Your task to perform on an android device: find photos in the google photos app Image 0: 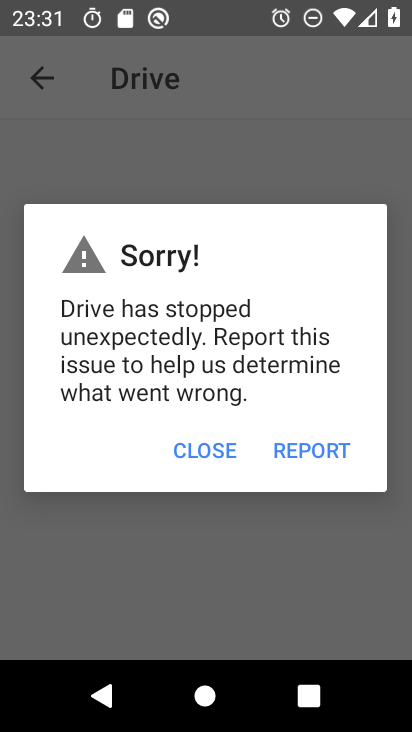
Step 0: press home button
Your task to perform on an android device: find photos in the google photos app Image 1: 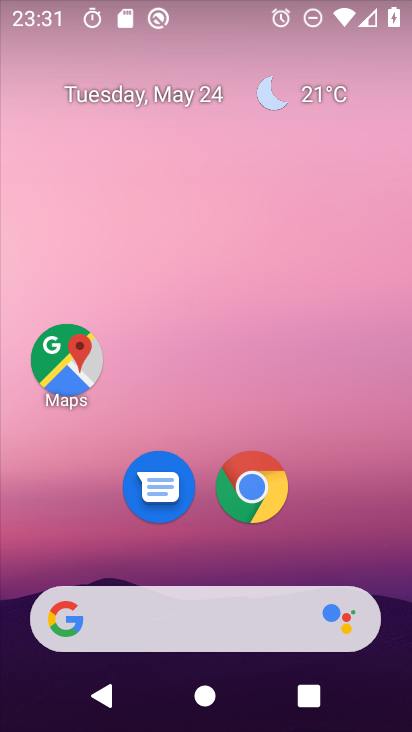
Step 1: drag from (343, 579) to (398, 54)
Your task to perform on an android device: find photos in the google photos app Image 2: 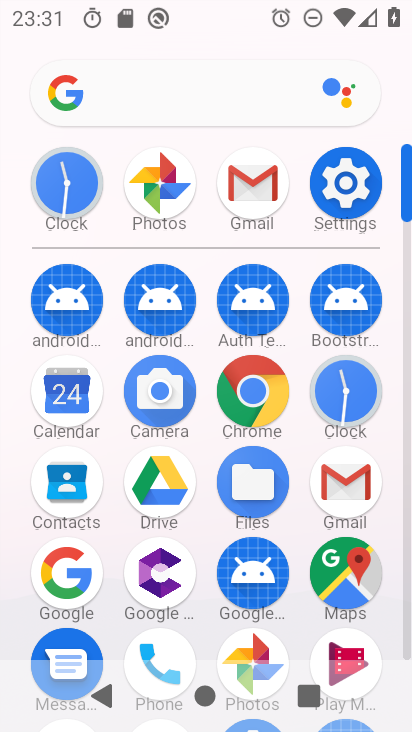
Step 2: click (161, 194)
Your task to perform on an android device: find photos in the google photos app Image 3: 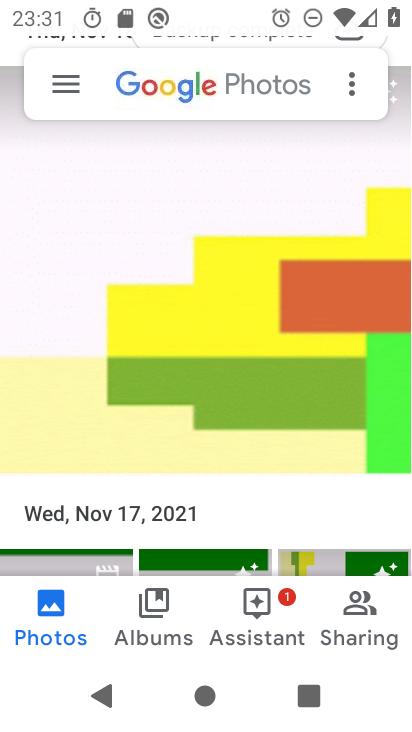
Step 3: click (64, 629)
Your task to perform on an android device: find photos in the google photos app Image 4: 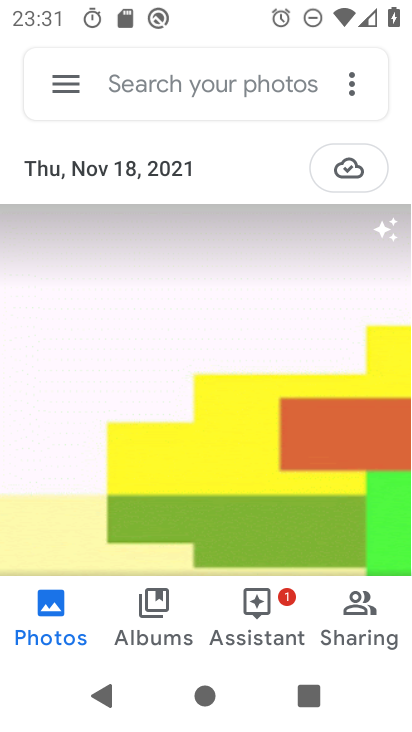
Step 4: task complete